Your task to perform on an android device: turn on location history Image 0: 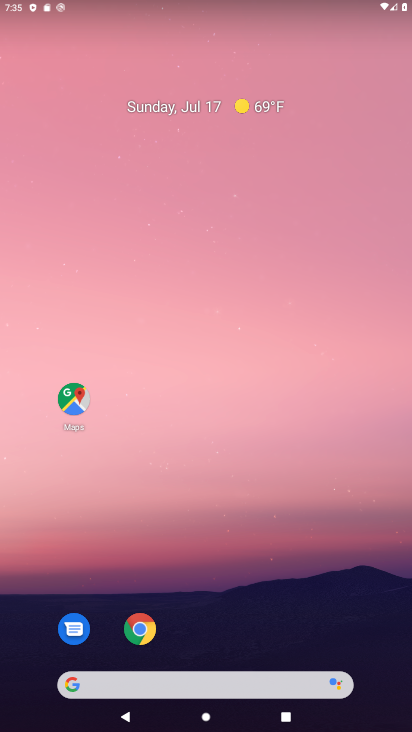
Step 0: drag from (248, 625) to (232, 183)
Your task to perform on an android device: turn on location history Image 1: 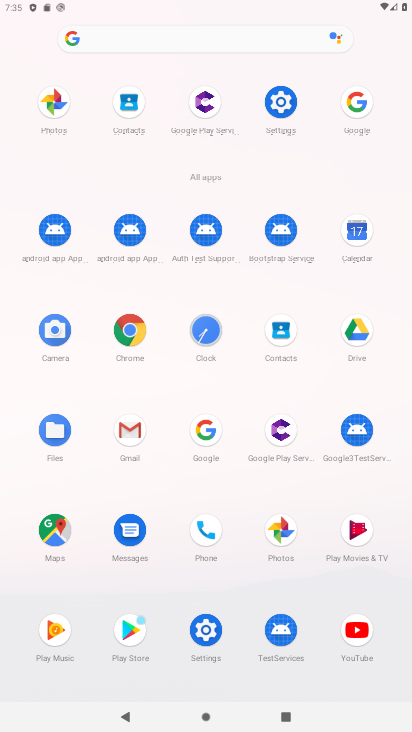
Step 1: click (283, 105)
Your task to perform on an android device: turn on location history Image 2: 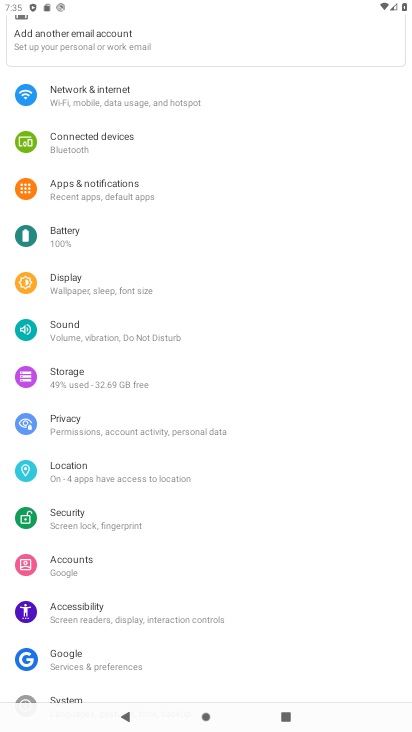
Step 2: click (85, 474)
Your task to perform on an android device: turn on location history Image 3: 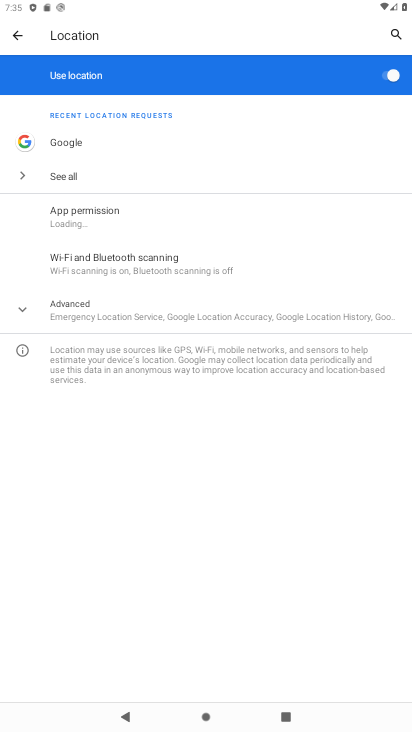
Step 3: click (60, 313)
Your task to perform on an android device: turn on location history Image 4: 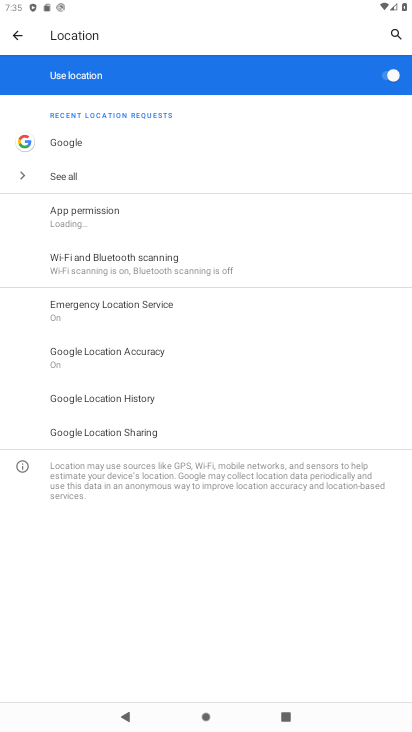
Step 4: click (145, 398)
Your task to perform on an android device: turn on location history Image 5: 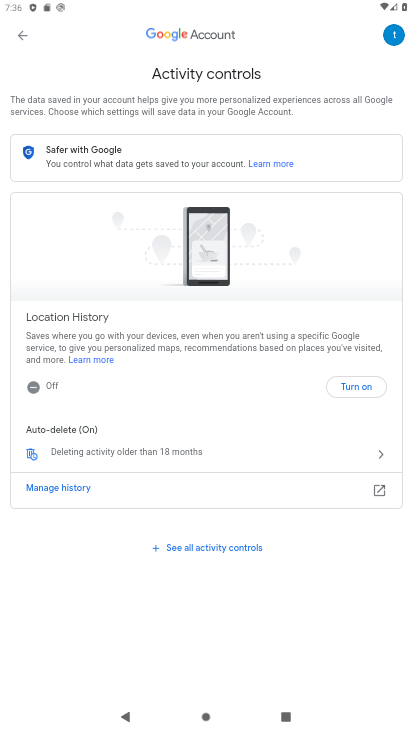
Step 5: click (358, 385)
Your task to perform on an android device: turn on location history Image 6: 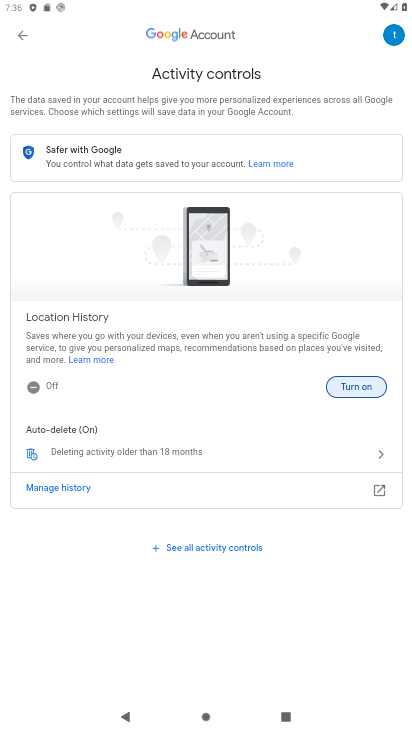
Step 6: click (358, 385)
Your task to perform on an android device: turn on location history Image 7: 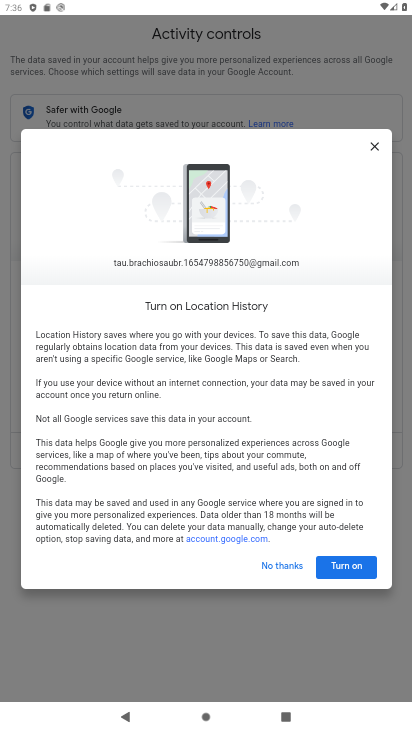
Step 7: click (340, 560)
Your task to perform on an android device: turn on location history Image 8: 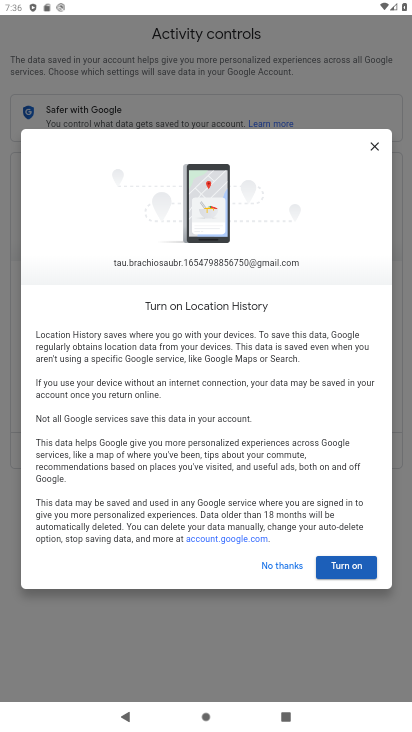
Step 8: click (338, 572)
Your task to perform on an android device: turn on location history Image 9: 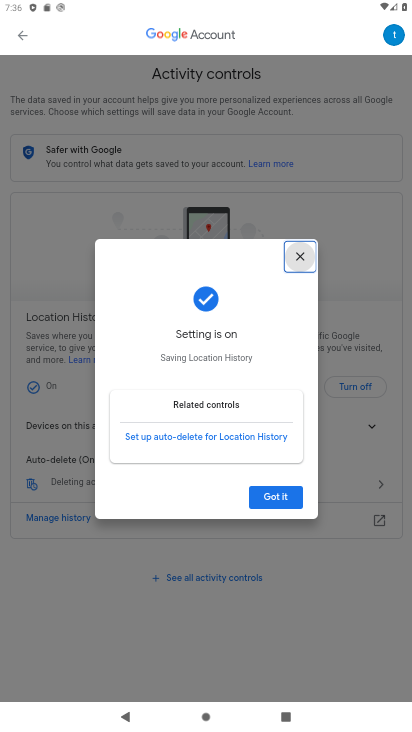
Step 9: click (260, 499)
Your task to perform on an android device: turn on location history Image 10: 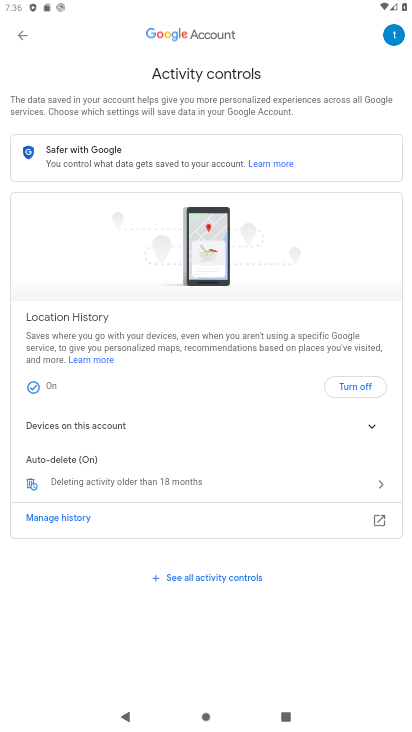
Step 10: task complete